Your task to perform on an android device: visit the assistant section in the google photos Image 0: 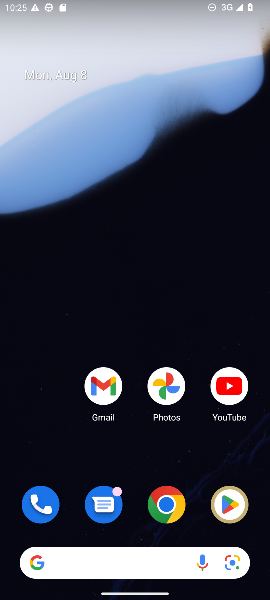
Step 0: click (159, 396)
Your task to perform on an android device: visit the assistant section in the google photos Image 1: 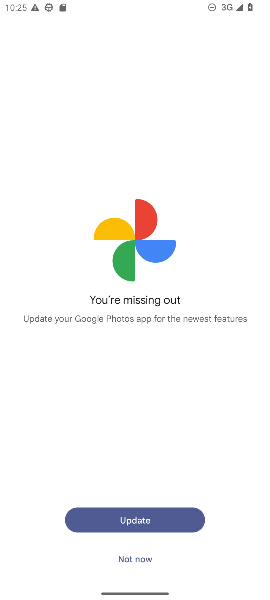
Step 1: click (139, 560)
Your task to perform on an android device: visit the assistant section in the google photos Image 2: 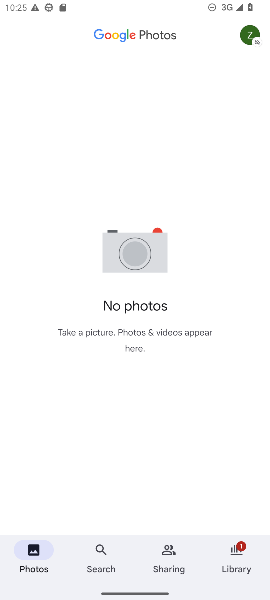
Step 2: click (179, 554)
Your task to perform on an android device: visit the assistant section in the google photos Image 3: 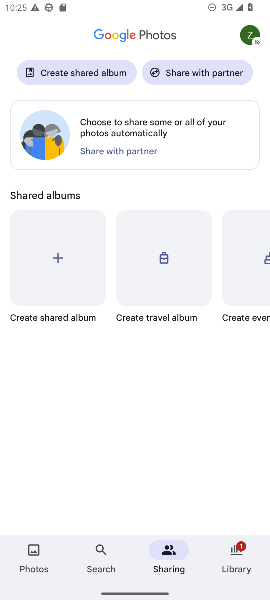
Step 3: drag from (192, 244) to (2, 228)
Your task to perform on an android device: visit the assistant section in the google photos Image 4: 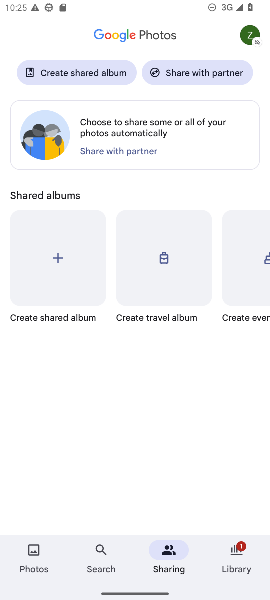
Step 4: click (230, 557)
Your task to perform on an android device: visit the assistant section in the google photos Image 5: 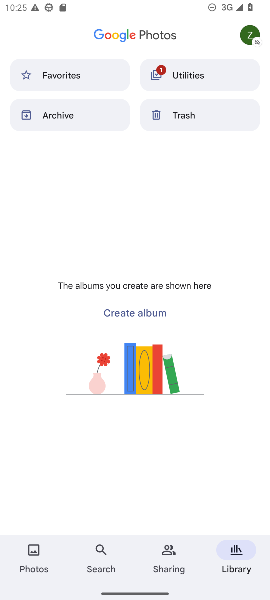
Step 5: click (97, 559)
Your task to perform on an android device: visit the assistant section in the google photos Image 6: 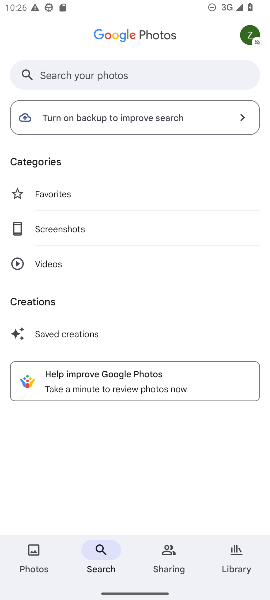
Step 6: click (250, 31)
Your task to perform on an android device: visit the assistant section in the google photos Image 7: 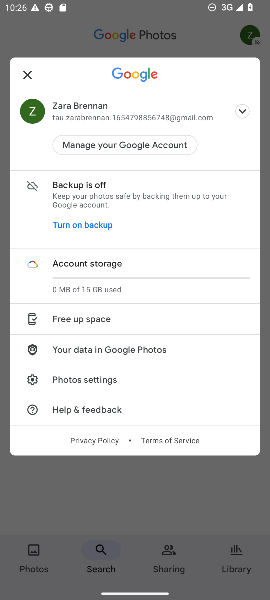
Step 7: task complete